Your task to perform on an android device: Open display settings Image 0: 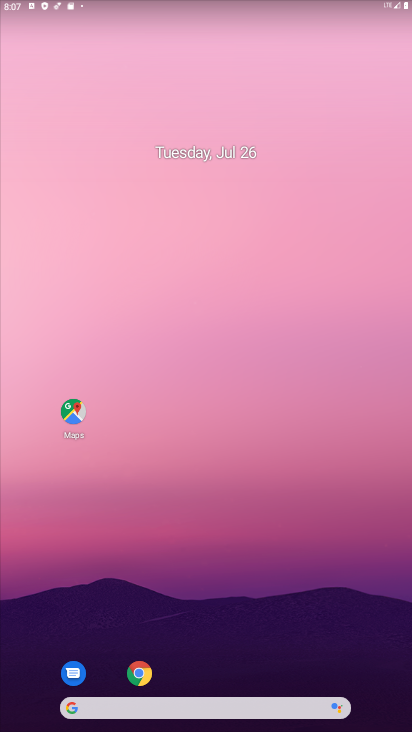
Step 0: drag from (188, 280) to (204, 118)
Your task to perform on an android device: Open display settings Image 1: 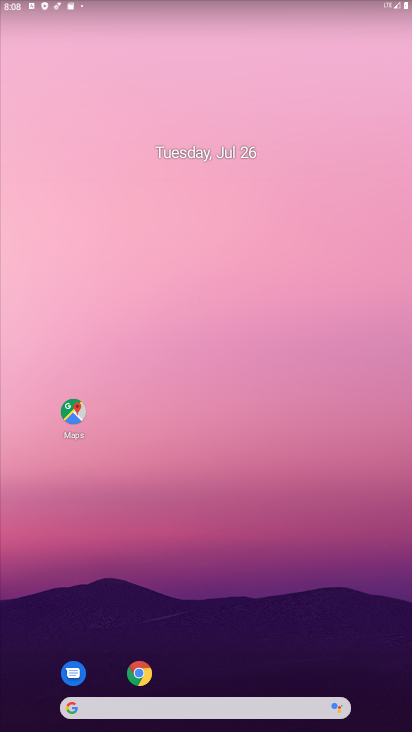
Step 1: drag from (196, 651) to (207, 210)
Your task to perform on an android device: Open display settings Image 2: 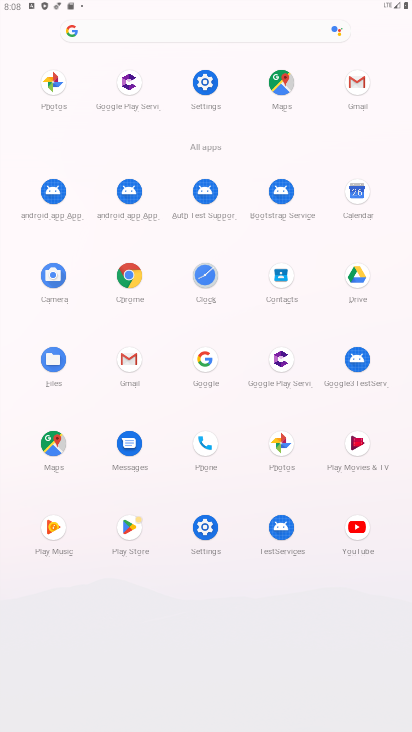
Step 2: click (204, 63)
Your task to perform on an android device: Open display settings Image 3: 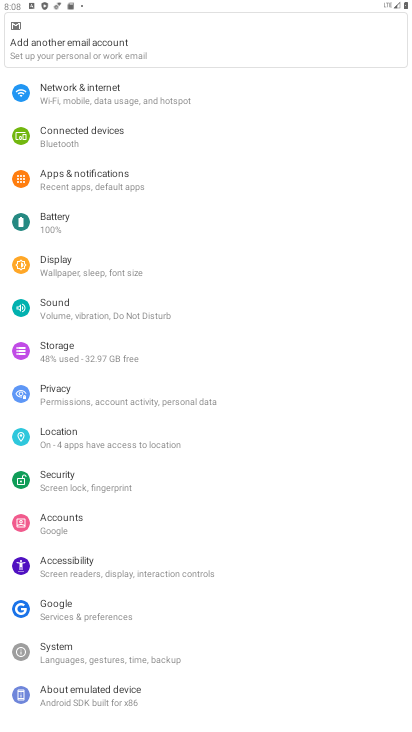
Step 3: click (73, 280)
Your task to perform on an android device: Open display settings Image 4: 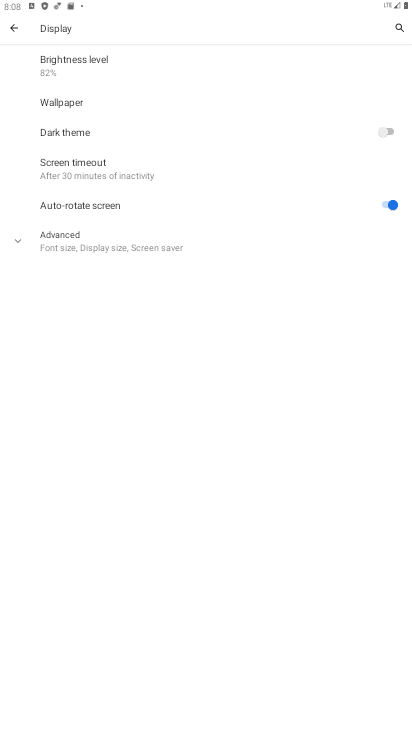
Step 4: task complete